Your task to perform on an android device: Go to internet settings Image 0: 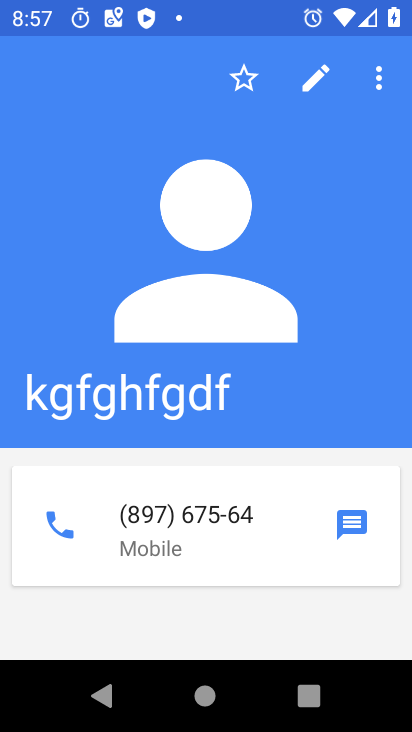
Step 0: press home button
Your task to perform on an android device: Go to internet settings Image 1: 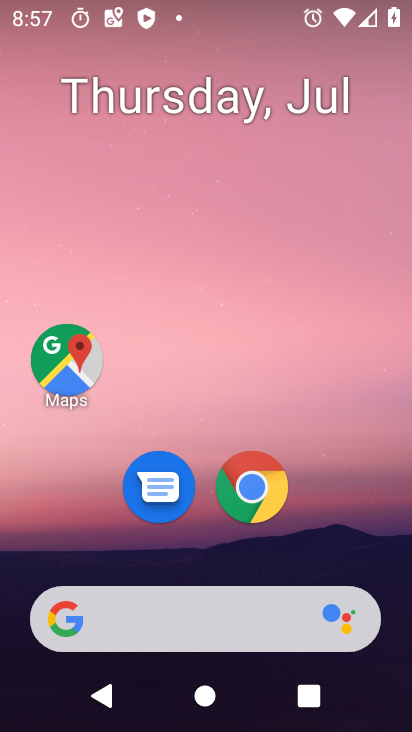
Step 1: drag from (268, 646) to (243, 100)
Your task to perform on an android device: Go to internet settings Image 2: 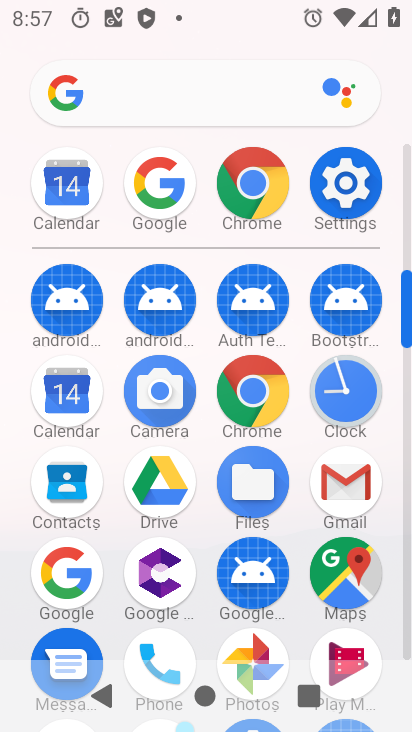
Step 2: click (350, 208)
Your task to perform on an android device: Go to internet settings Image 3: 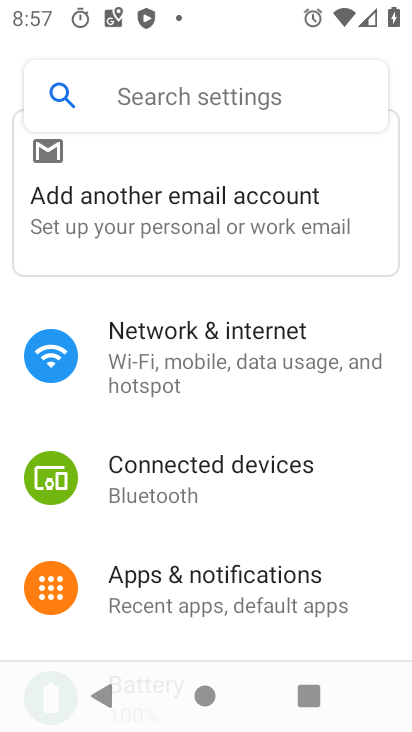
Step 3: drag from (224, 575) to (228, 267)
Your task to perform on an android device: Go to internet settings Image 4: 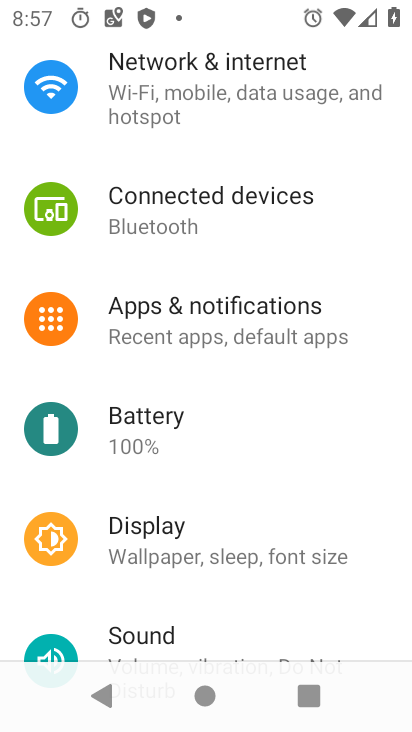
Step 4: drag from (202, 505) to (206, 238)
Your task to perform on an android device: Go to internet settings Image 5: 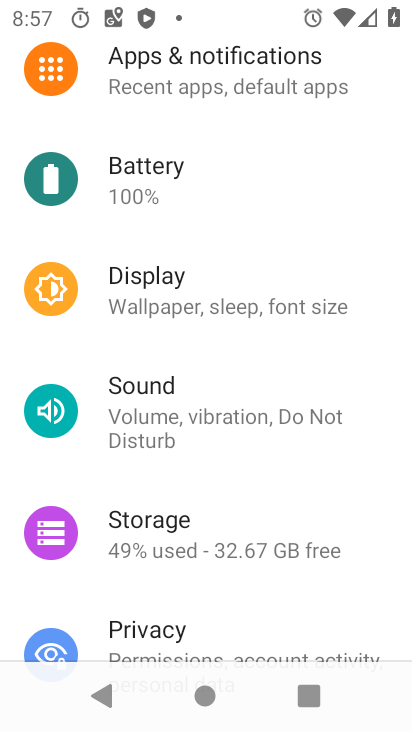
Step 5: drag from (186, 280) to (118, 703)
Your task to perform on an android device: Go to internet settings Image 6: 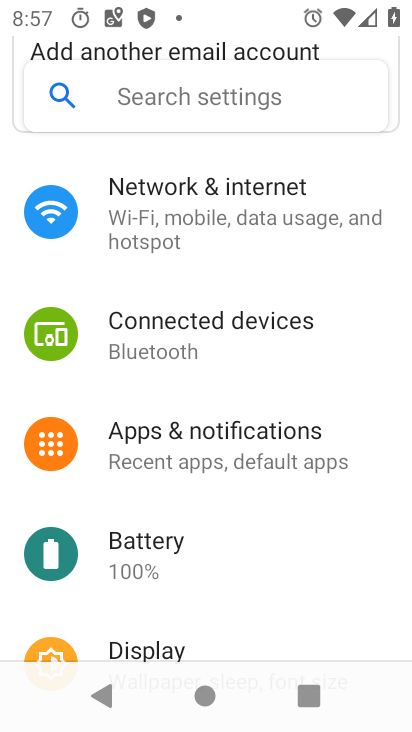
Step 6: click (198, 223)
Your task to perform on an android device: Go to internet settings Image 7: 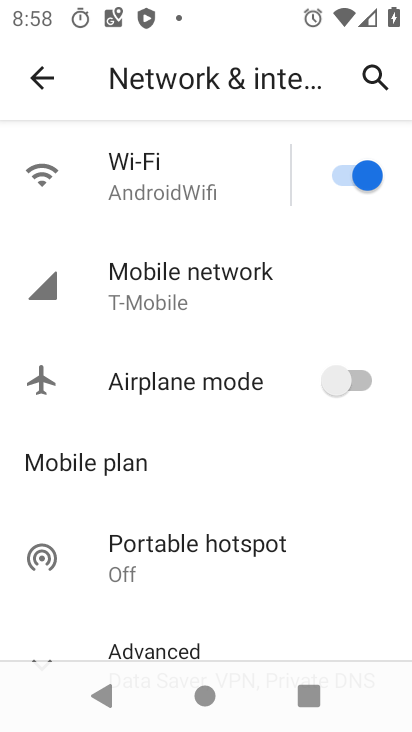
Step 7: click (166, 283)
Your task to perform on an android device: Go to internet settings Image 8: 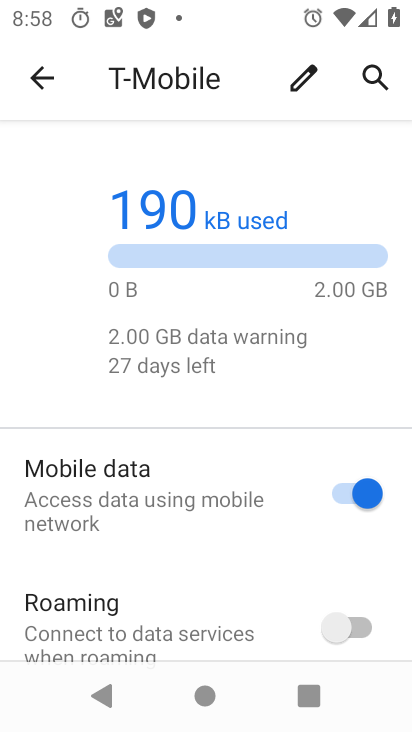
Step 8: task complete